Your task to perform on an android device: turn on wifi Image 0: 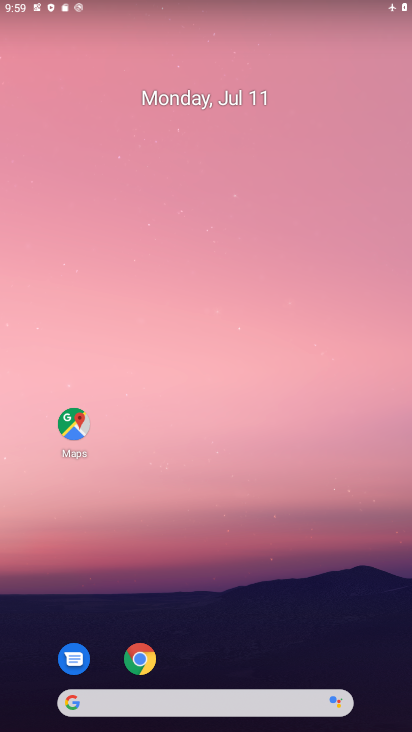
Step 0: drag from (222, 728) to (219, 71)
Your task to perform on an android device: turn on wifi Image 1: 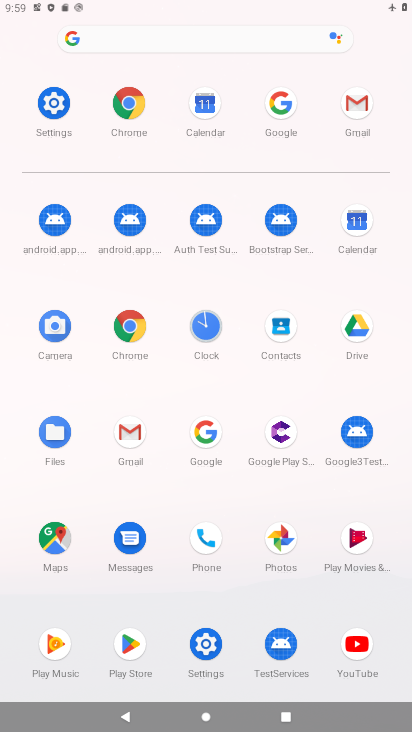
Step 1: click (56, 96)
Your task to perform on an android device: turn on wifi Image 2: 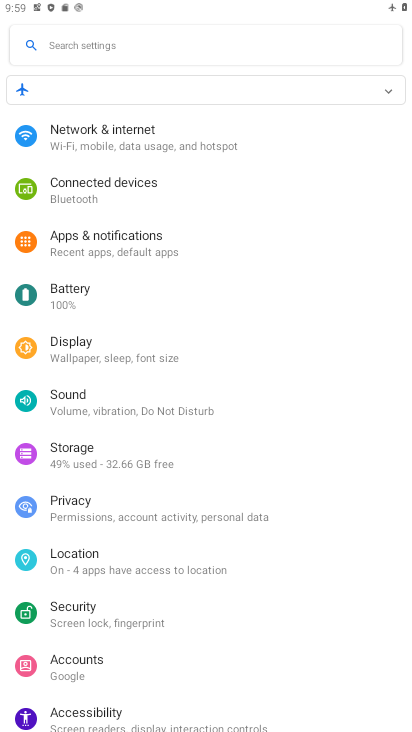
Step 2: click (90, 136)
Your task to perform on an android device: turn on wifi Image 3: 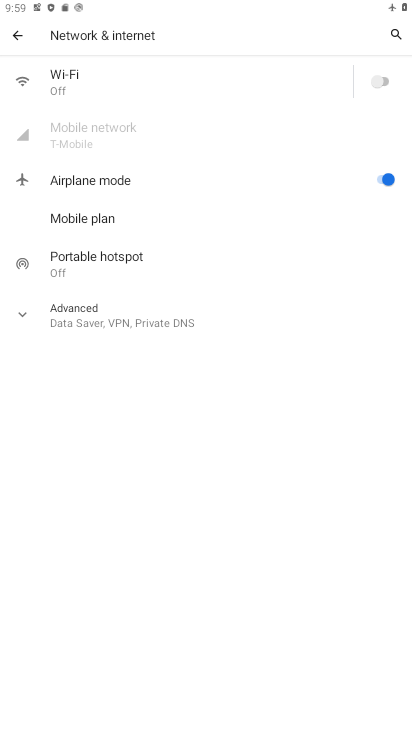
Step 3: click (383, 82)
Your task to perform on an android device: turn on wifi Image 4: 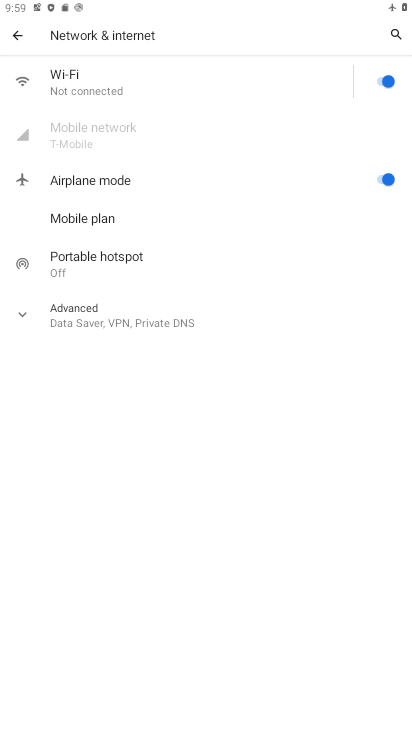
Step 4: task complete